Your task to perform on an android device: Do I have any events this weekend? Image 0: 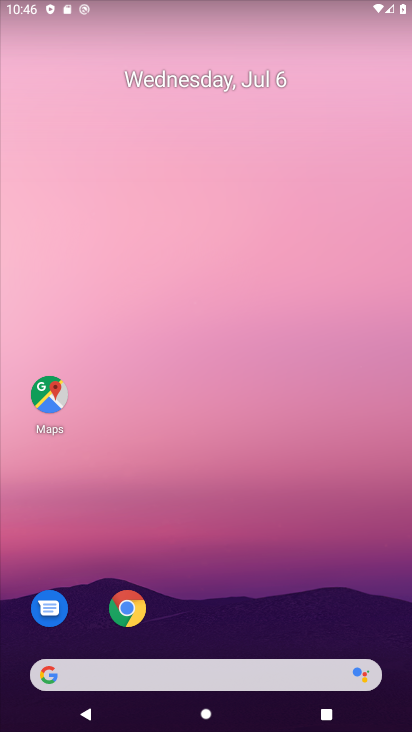
Step 0: drag from (255, 647) to (176, 17)
Your task to perform on an android device: Do I have any events this weekend? Image 1: 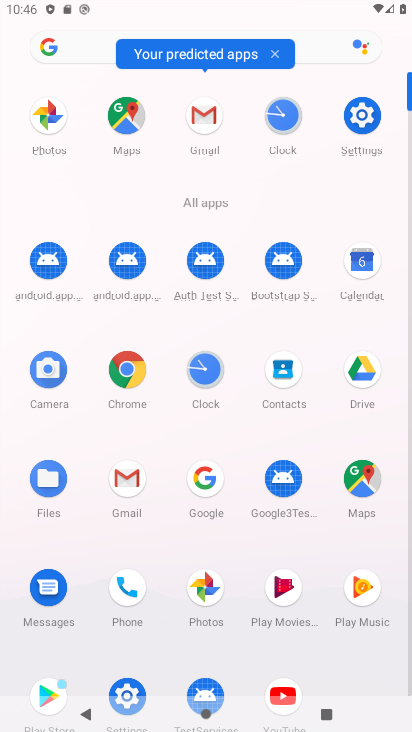
Step 1: click (363, 257)
Your task to perform on an android device: Do I have any events this weekend? Image 2: 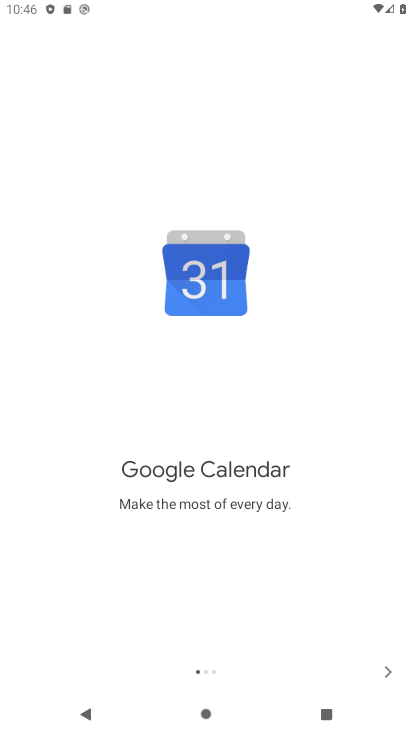
Step 2: click (391, 675)
Your task to perform on an android device: Do I have any events this weekend? Image 3: 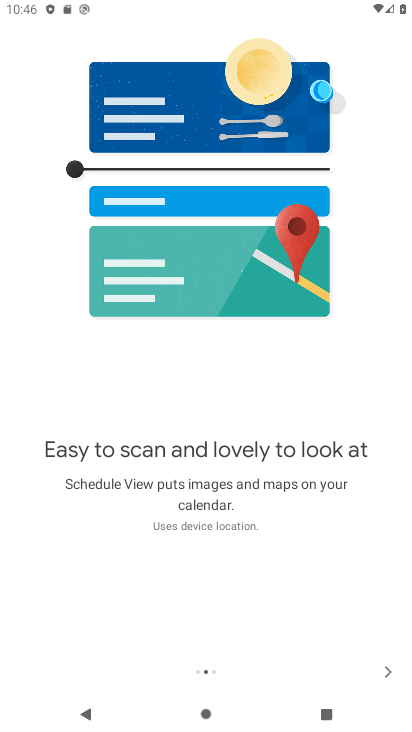
Step 3: click (381, 669)
Your task to perform on an android device: Do I have any events this weekend? Image 4: 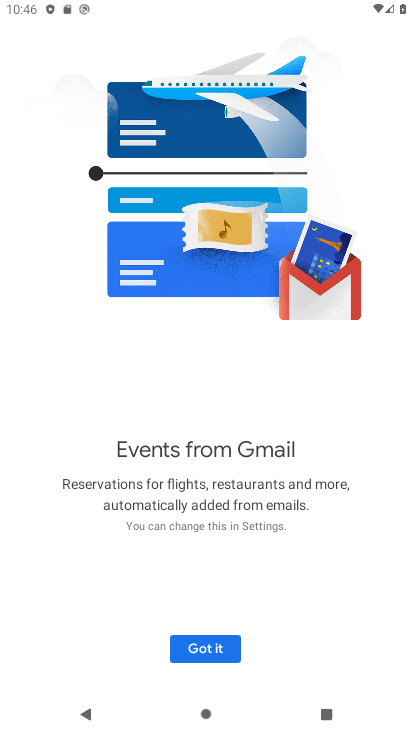
Step 4: click (191, 641)
Your task to perform on an android device: Do I have any events this weekend? Image 5: 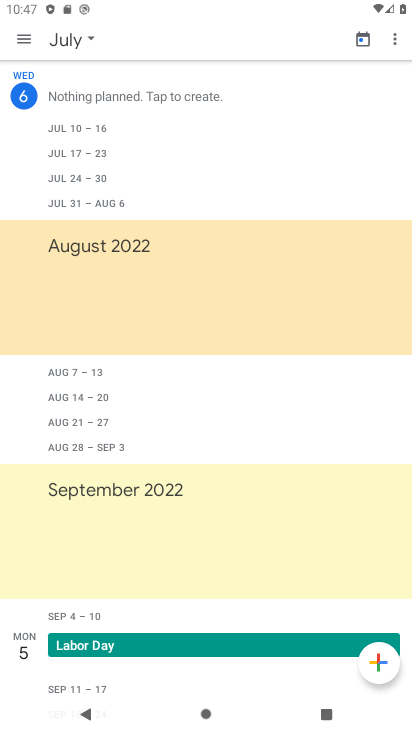
Step 5: click (17, 40)
Your task to perform on an android device: Do I have any events this weekend? Image 6: 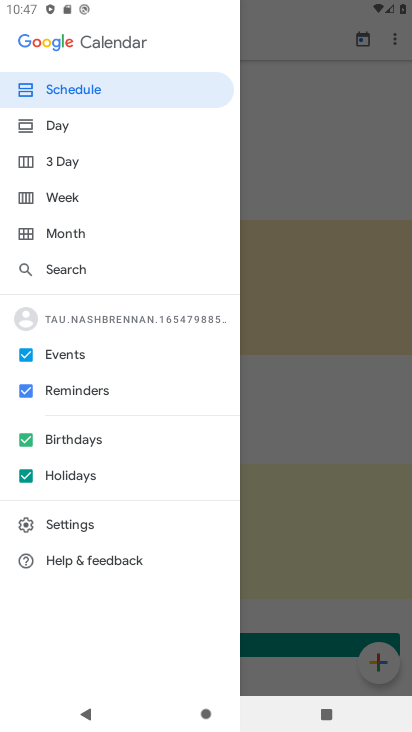
Step 6: click (59, 186)
Your task to perform on an android device: Do I have any events this weekend? Image 7: 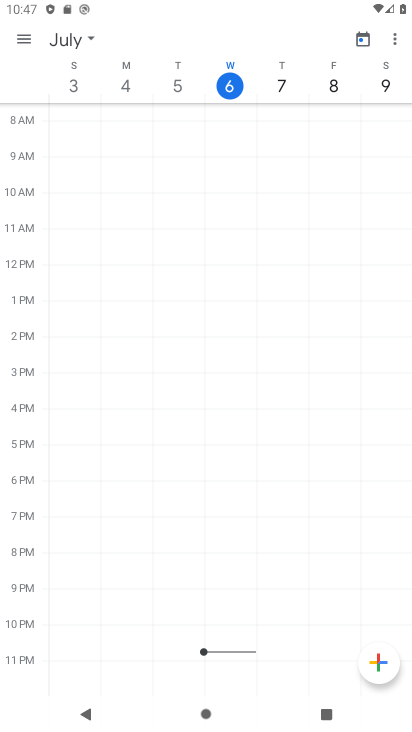
Step 7: task complete